Your task to perform on an android device: add a contact Image 0: 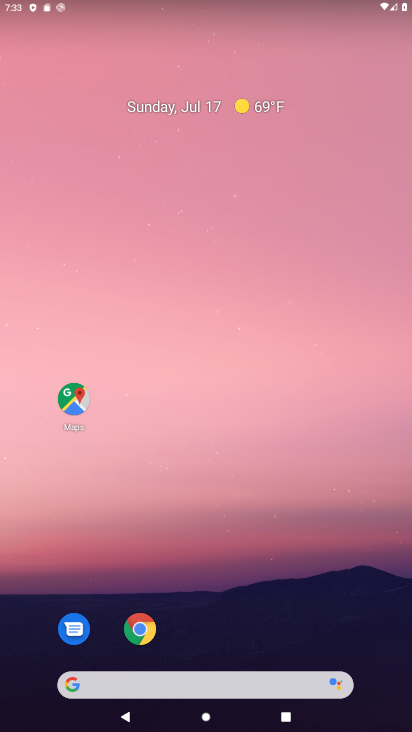
Step 0: drag from (191, 629) to (181, 100)
Your task to perform on an android device: add a contact Image 1: 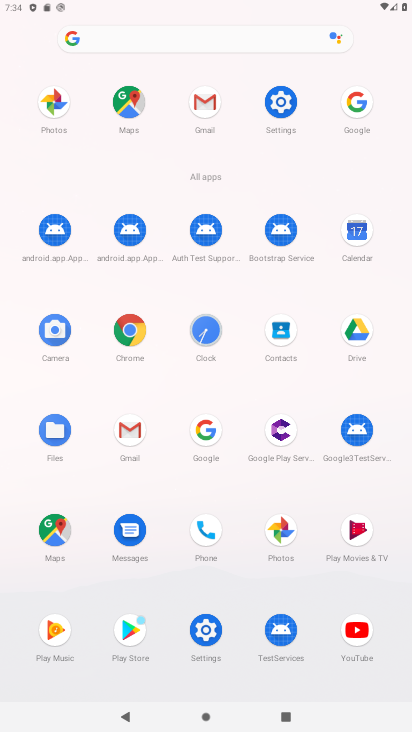
Step 1: click (283, 332)
Your task to perform on an android device: add a contact Image 2: 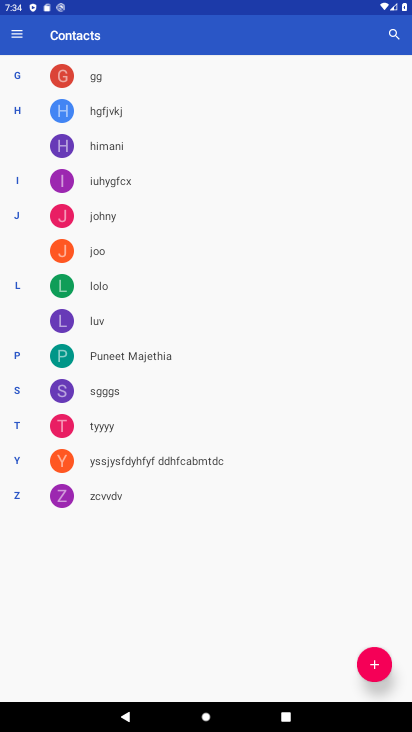
Step 2: click (375, 659)
Your task to perform on an android device: add a contact Image 3: 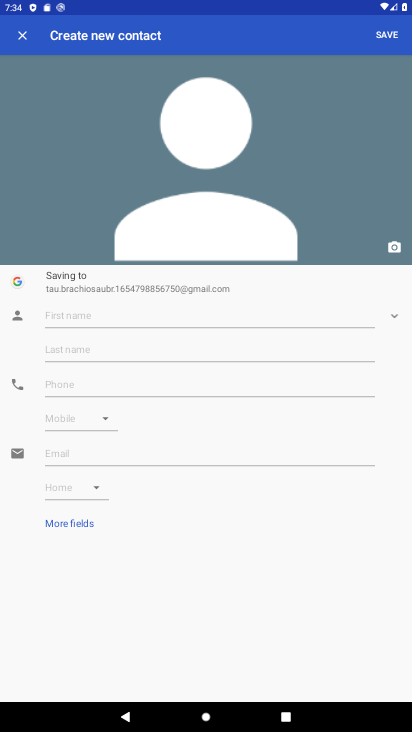
Step 3: click (131, 315)
Your task to perform on an android device: add a contact Image 4: 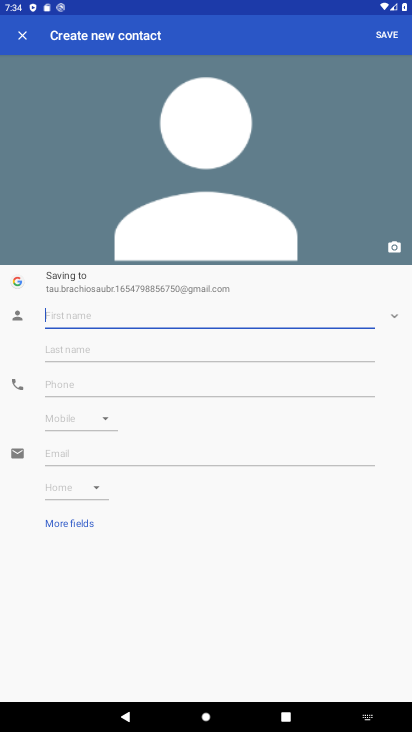
Step 4: type "fhfhg"
Your task to perform on an android device: add a contact Image 5: 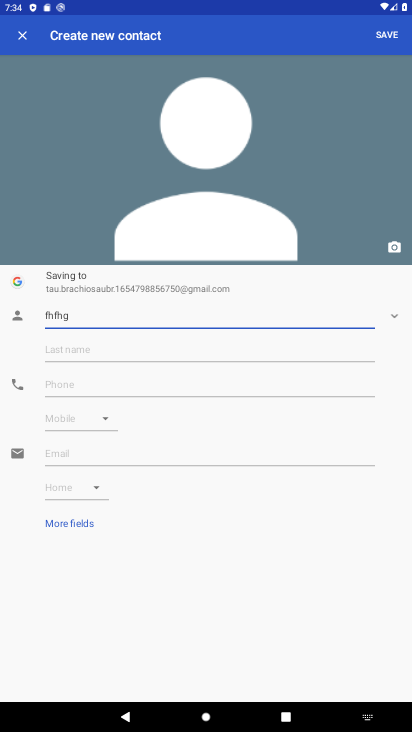
Step 5: click (180, 390)
Your task to perform on an android device: add a contact Image 6: 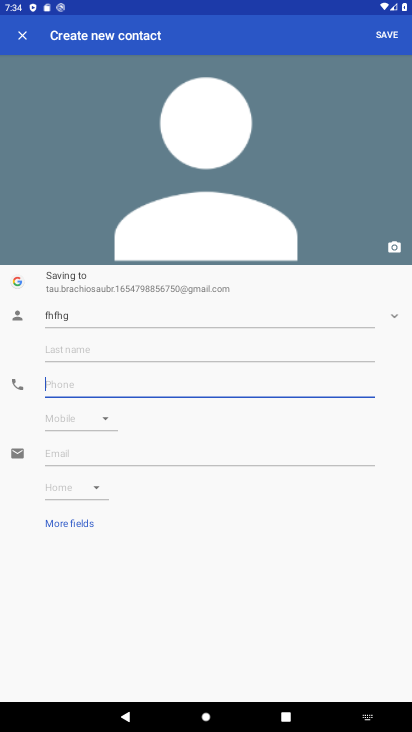
Step 6: type "7868755"
Your task to perform on an android device: add a contact Image 7: 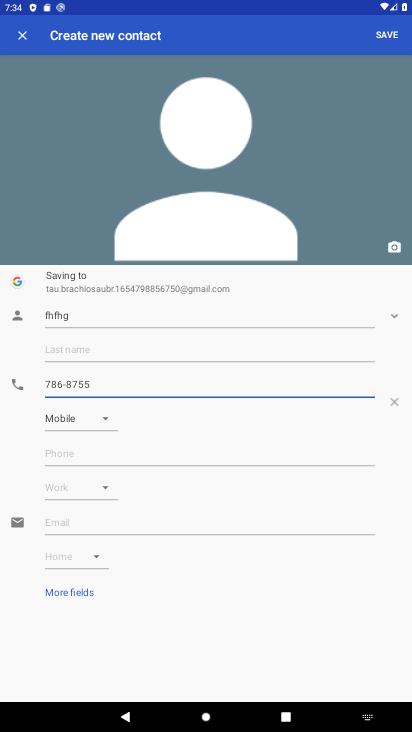
Step 7: click (388, 32)
Your task to perform on an android device: add a contact Image 8: 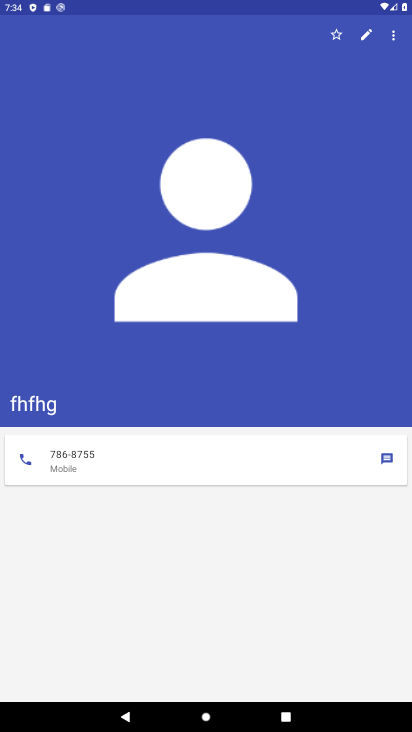
Step 8: task complete